Your task to perform on an android device: What's the weather going to be this weekend? Image 0: 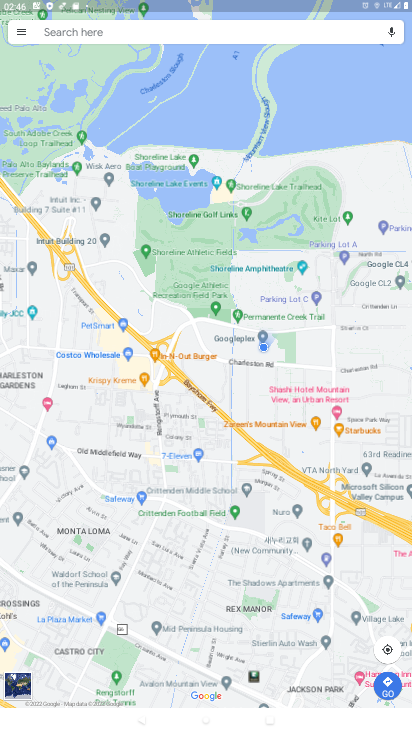
Step 0: press home button
Your task to perform on an android device: What's the weather going to be this weekend? Image 1: 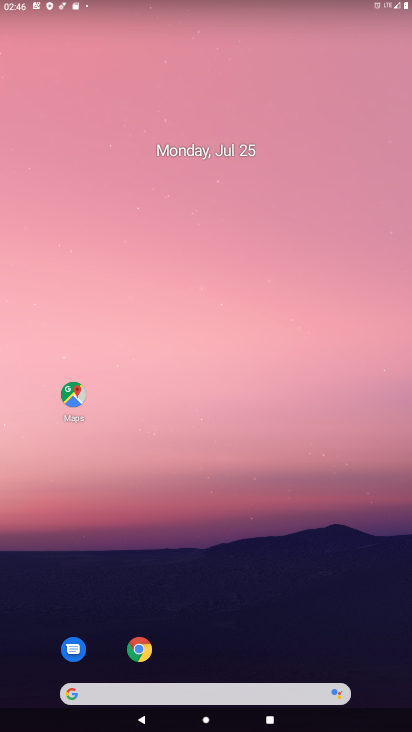
Step 1: drag from (7, 285) to (383, 332)
Your task to perform on an android device: What's the weather going to be this weekend? Image 2: 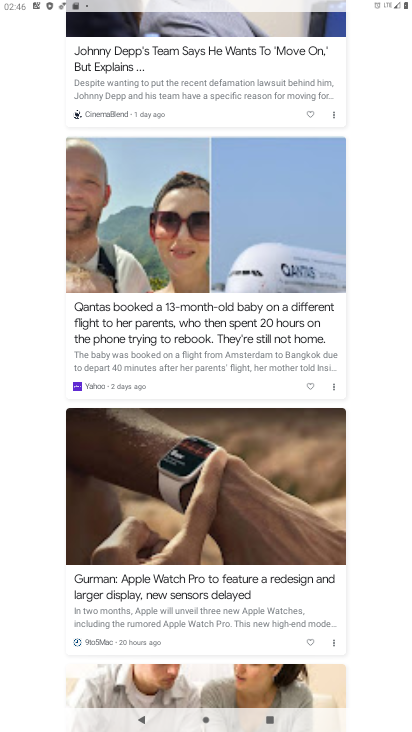
Step 2: drag from (352, 124) to (305, 535)
Your task to perform on an android device: What's the weather going to be this weekend? Image 3: 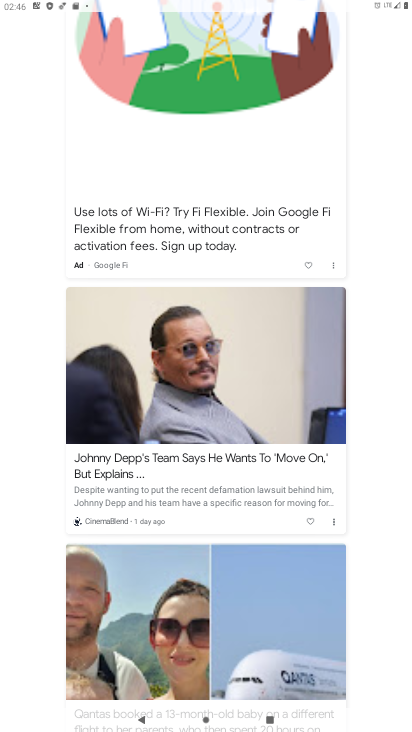
Step 3: drag from (350, 190) to (300, 590)
Your task to perform on an android device: What's the weather going to be this weekend? Image 4: 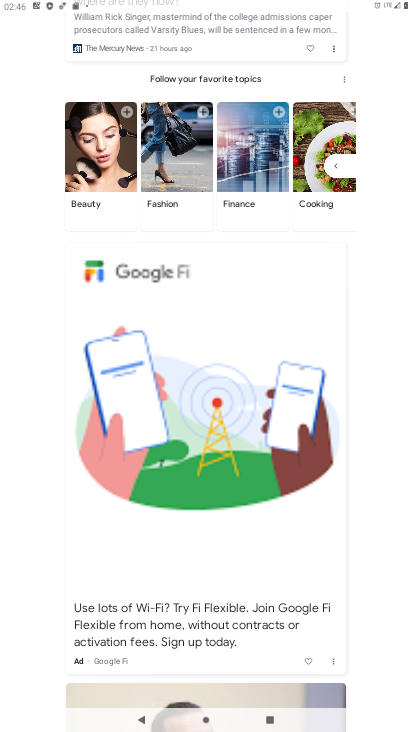
Step 4: drag from (355, 146) to (324, 496)
Your task to perform on an android device: What's the weather going to be this weekend? Image 5: 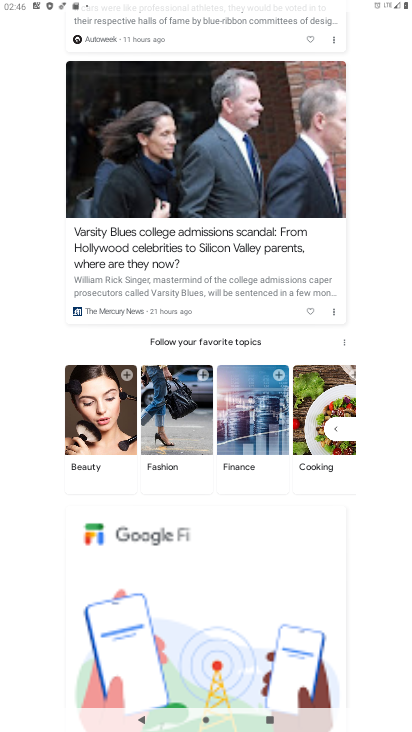
Step 5: drag from (369, 160) to (338, 547)
Your task to perform on an android device: What's the weather going to be this weekend? Image 6: 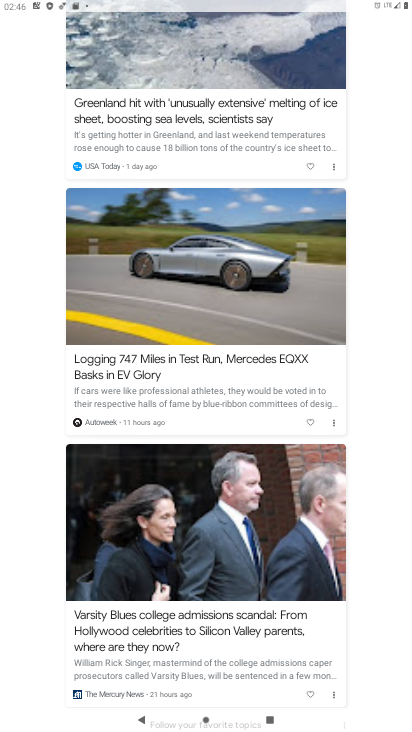
Step 6: drag from (342, 102) to (306, 471)
Your task to perform on an android device: What's the weather going to be this weekend? Image 7: 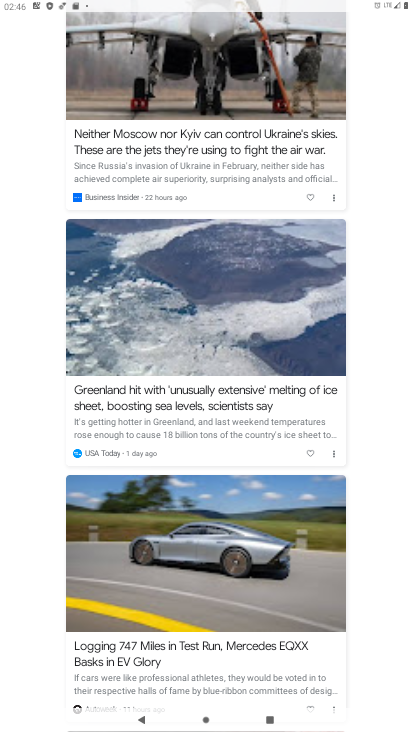
Step 7: drag from (343, 119) to (299, 532)
Your task to perform on an android device: What's the weather going to be this weekend? Image 8: 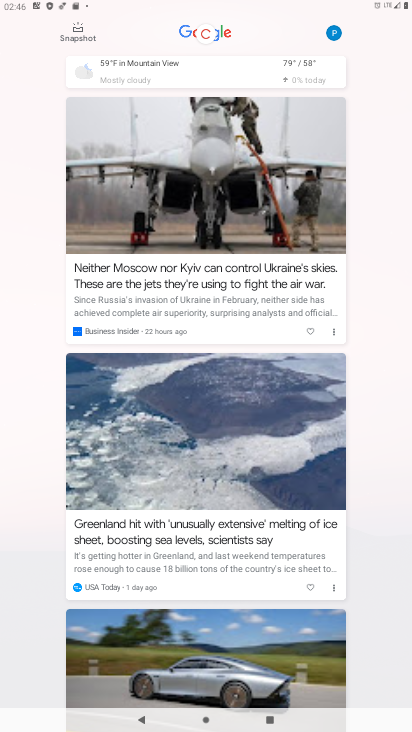
Step 8: click (294, 63)
Your task to perform on an android device: What's the weather going to be this weekend? Image 9: 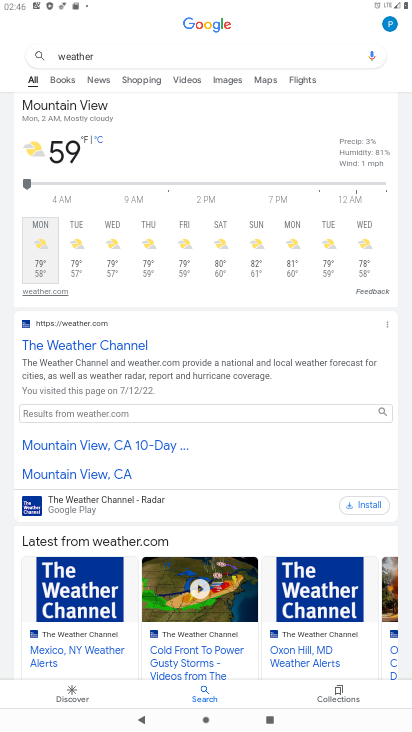
Step 9: task complete